Your task to perform on an android device: install app "ZOOM Cloud Meetings" Image 0: 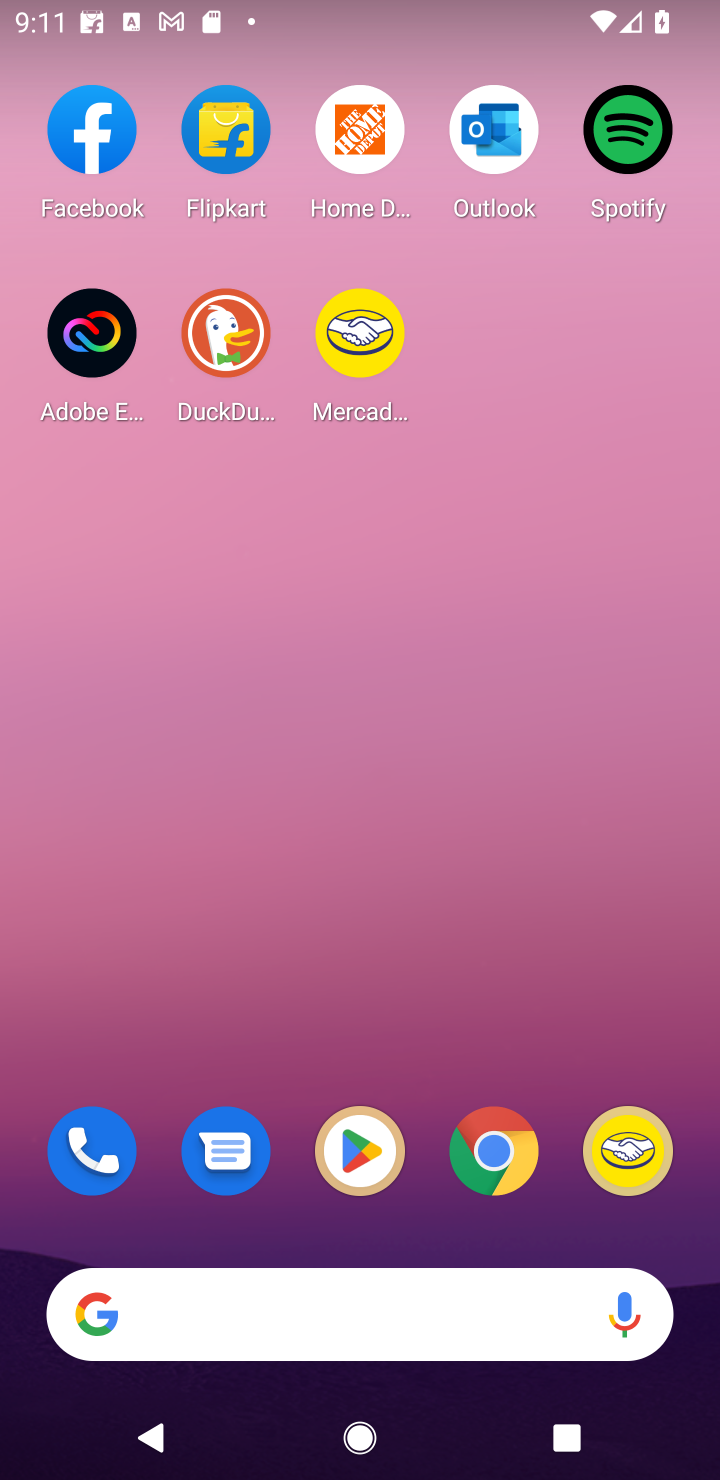
Step 0: press home button
Your task to perform on an android device: install app "ZOOM Cloud Meetings" Image 1: 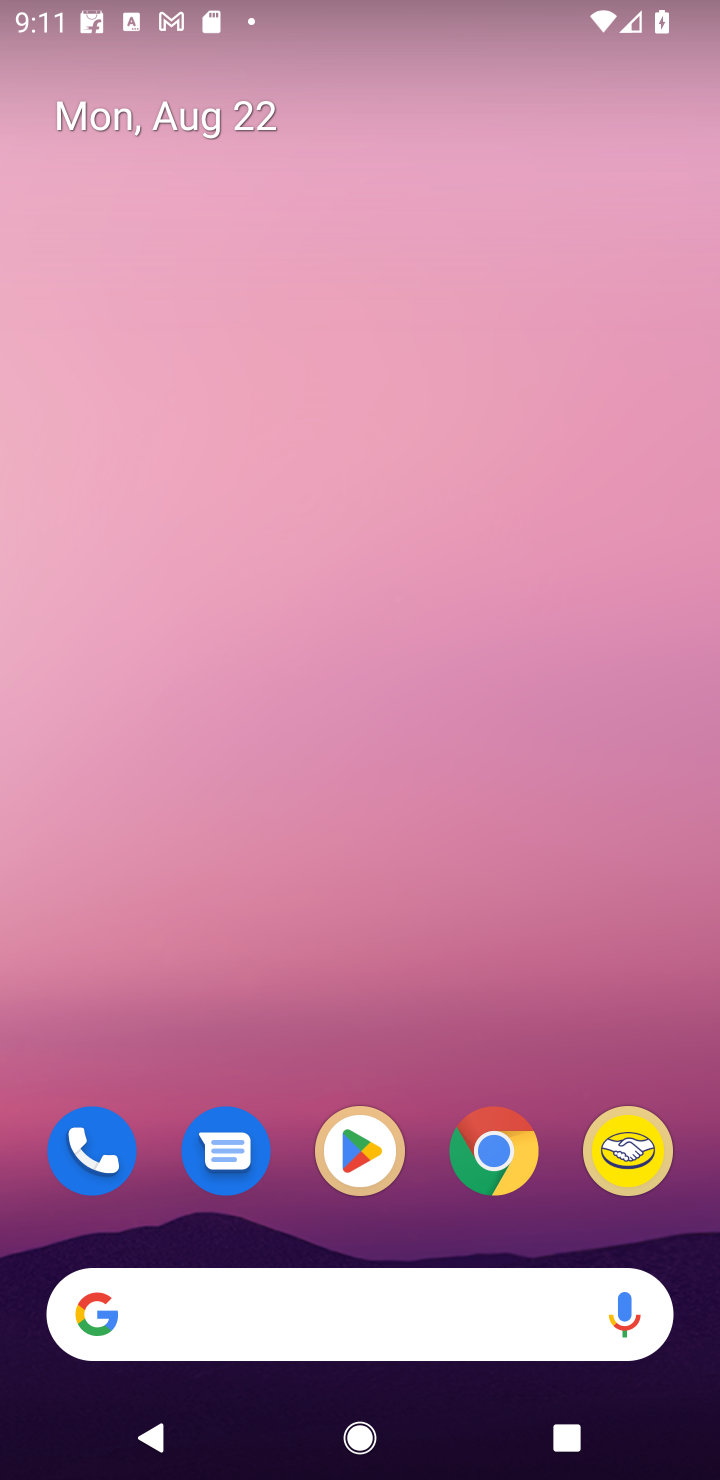
Step 1: click (357, 1156)
Your task to perform on an android device: install app "ZOOM Cloud Meetings" Image 2: 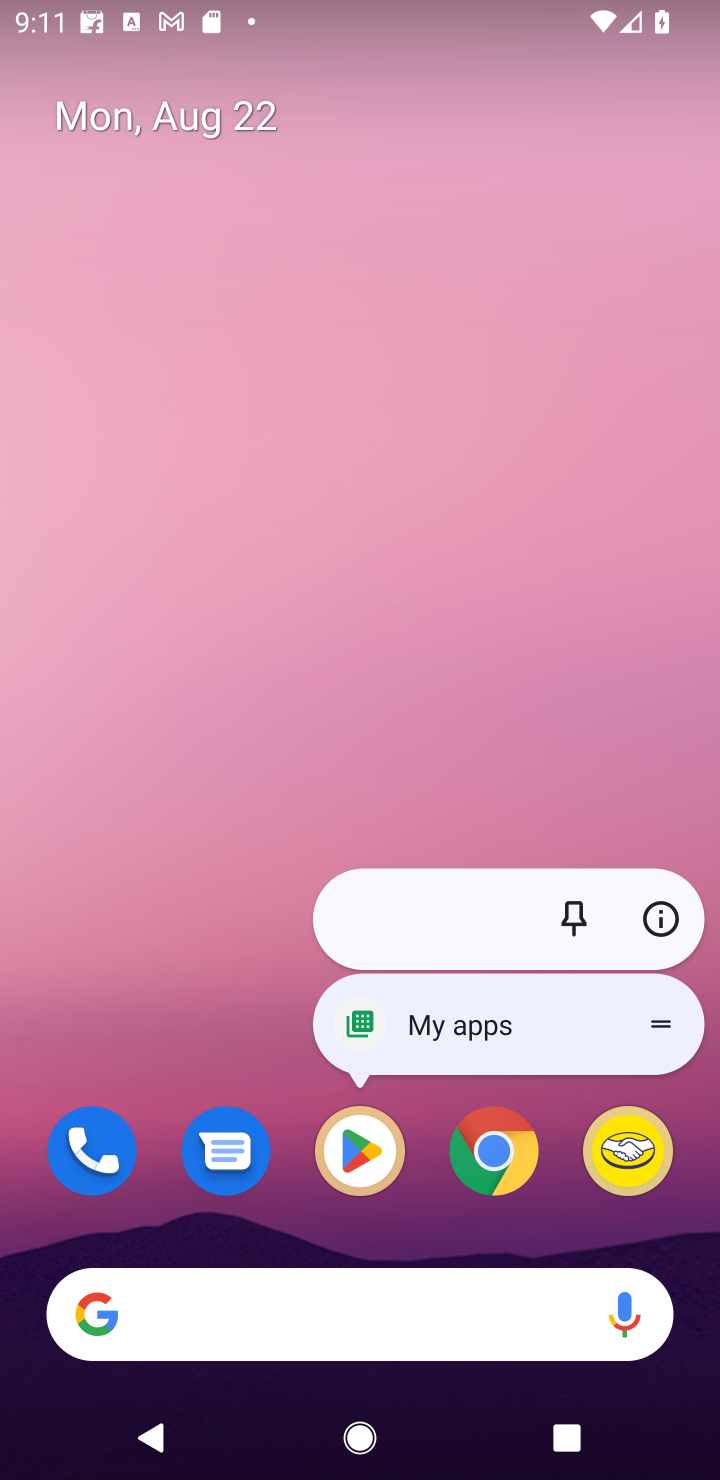
Step 2: click (359, 1167)
Your task to perform on an android device: install app "ZOOM Cloud Meetings" Image 3: 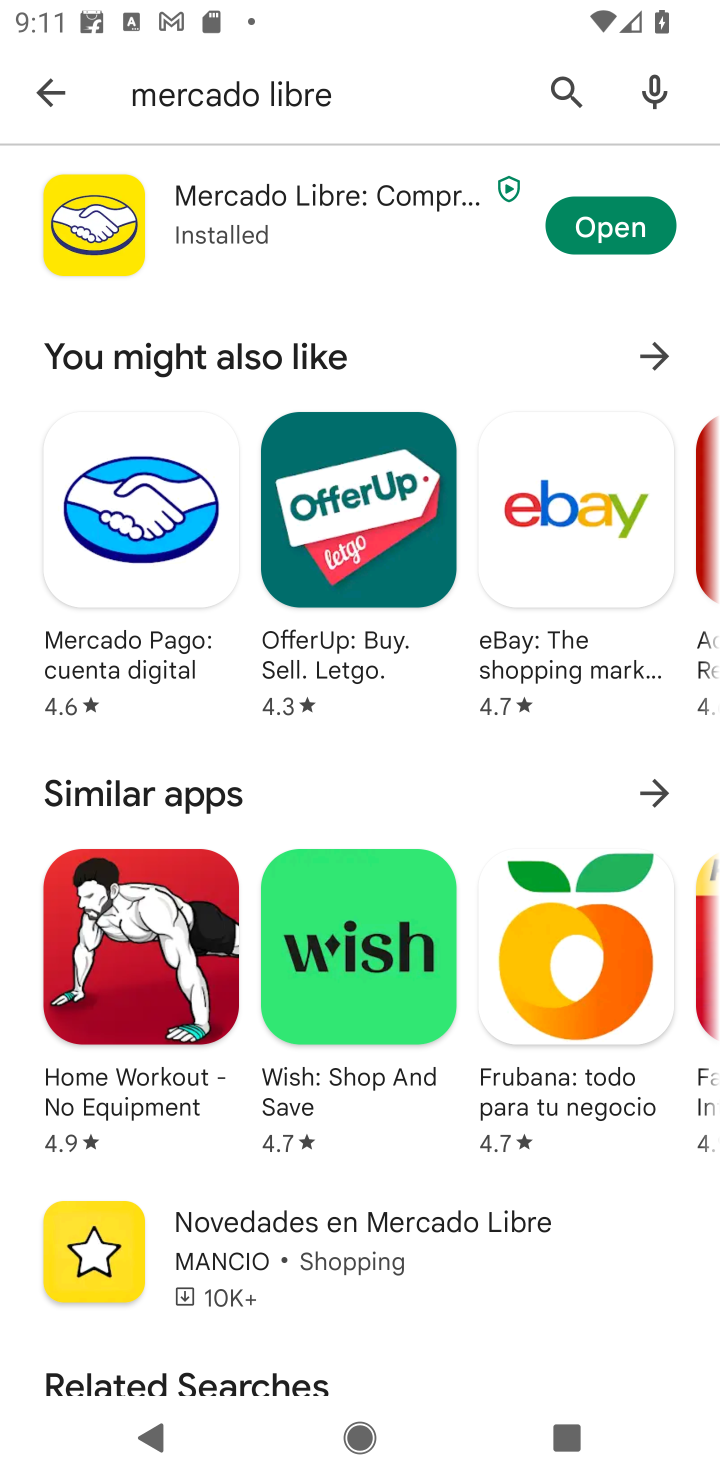
Step 3: click (556, 78)
Your task to perform on an android device: install app "ZOOM Cloud Meetings" Image 4: 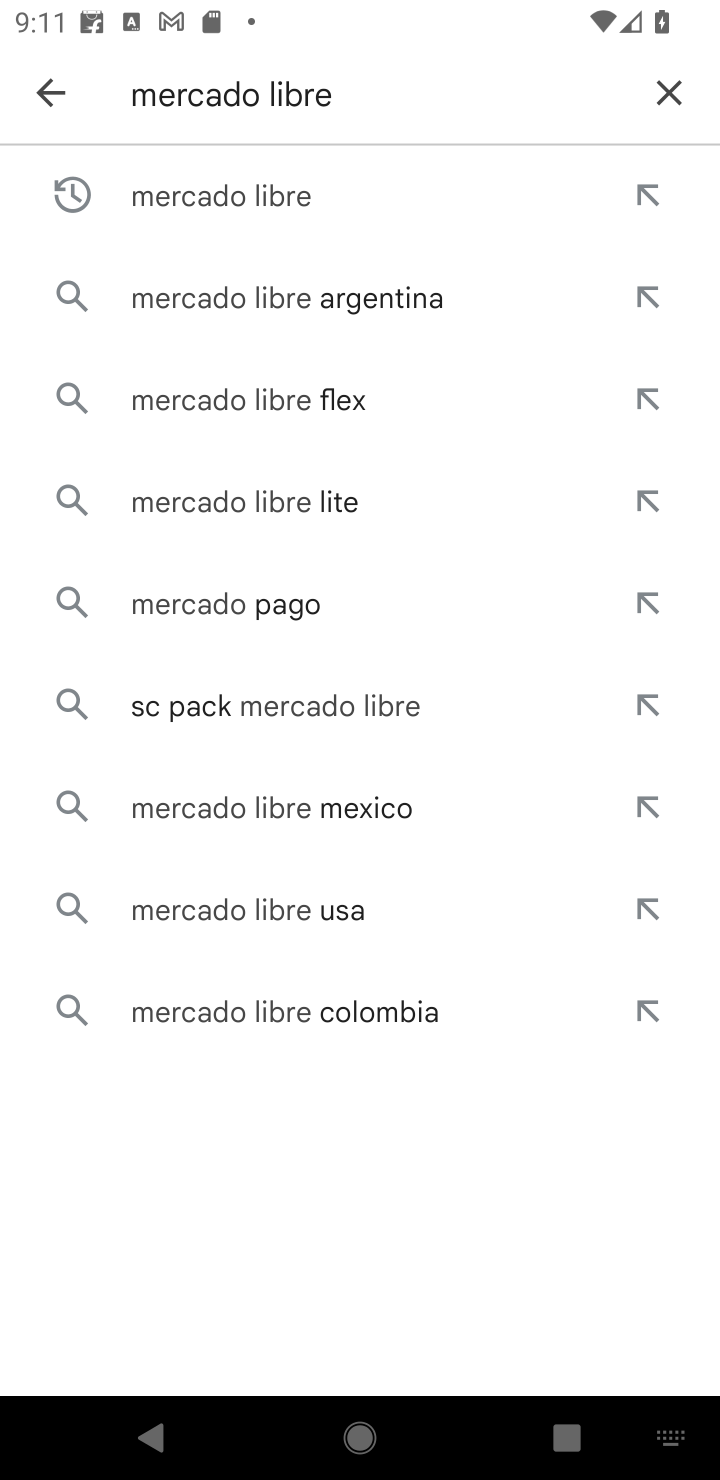
Step 4: click (655, 75)
Your task to perform on an android device: install app "ZOOM Cloud Meetings" Image 5: 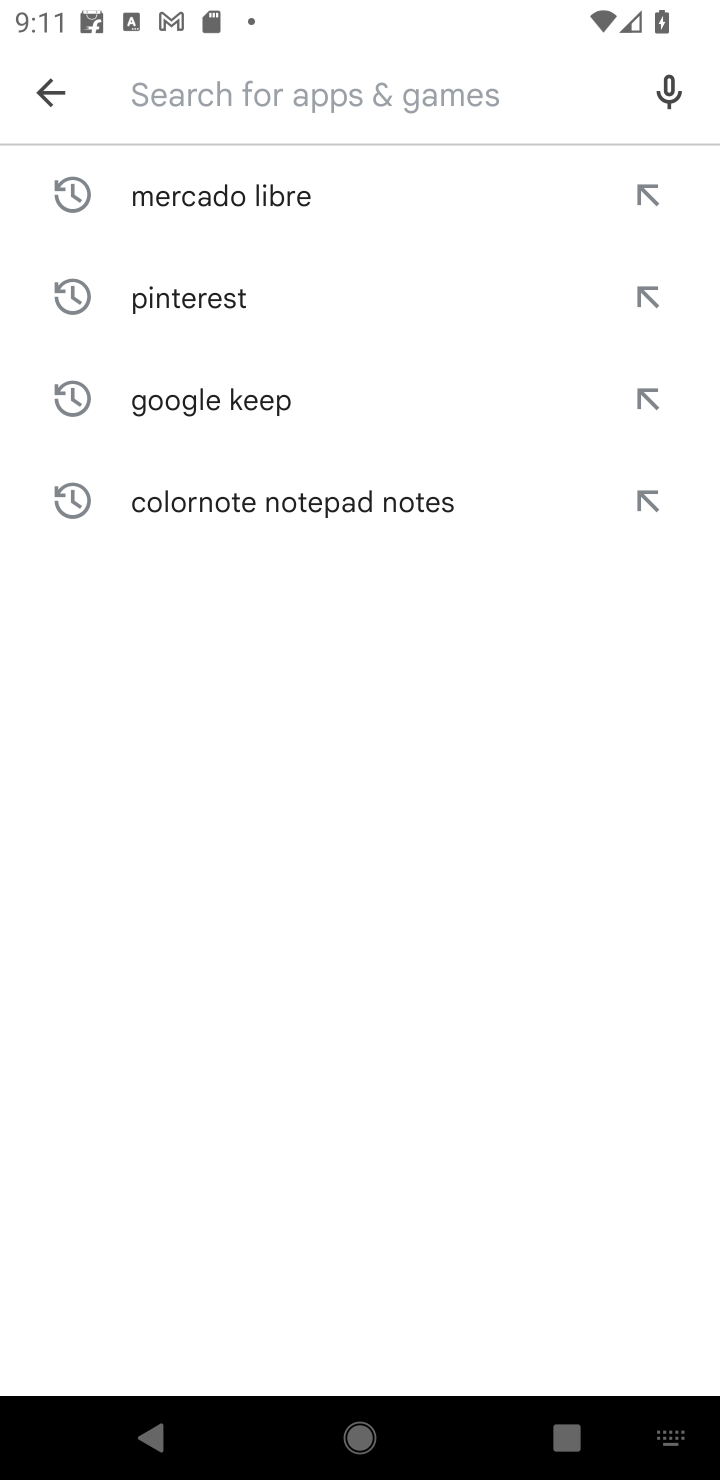
Step 5: type "ZOOM Cloud Meetings"
Your task to perform on an android device: install app "ZOOM Cloud Meetings" Image 6: 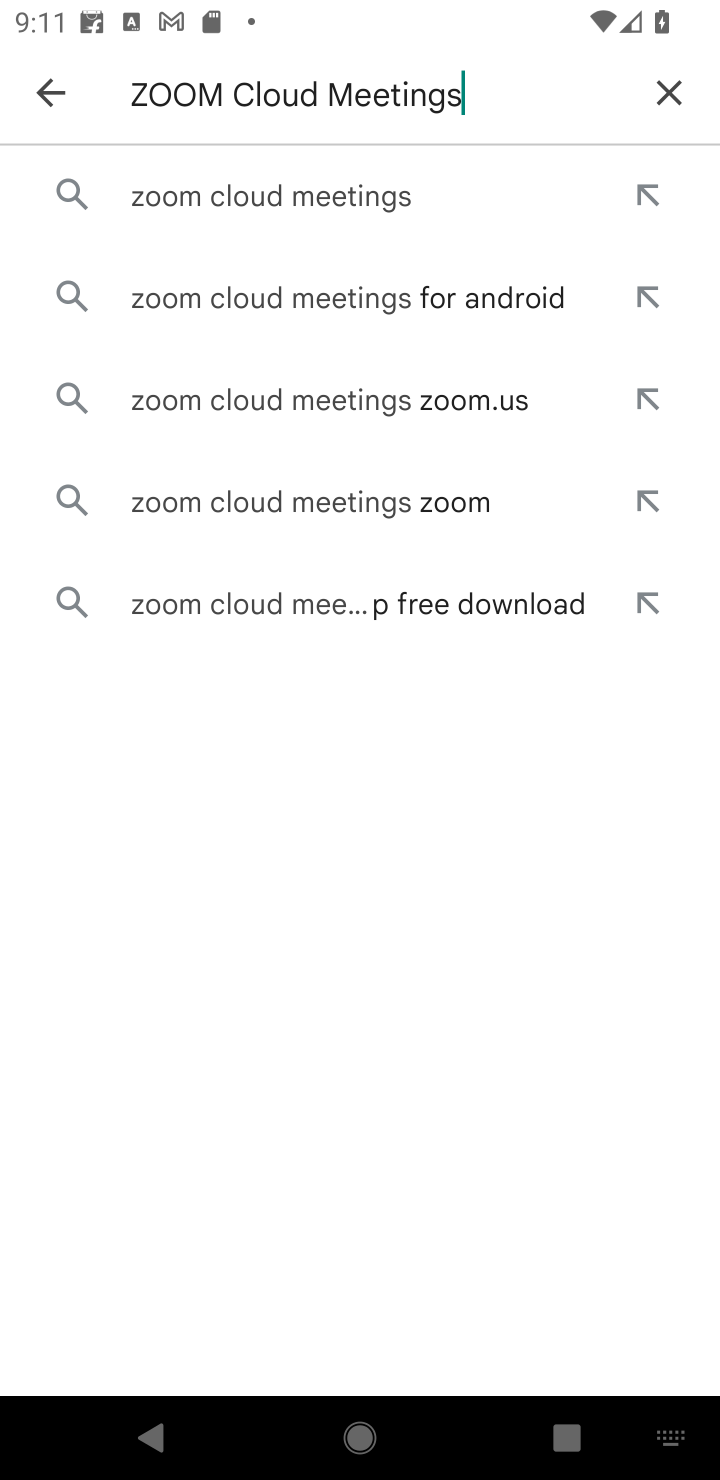
Step 6: click (253, 187)
Your task to perform on an android device: install app "ZOOM Cloud Meetings" Image 7: 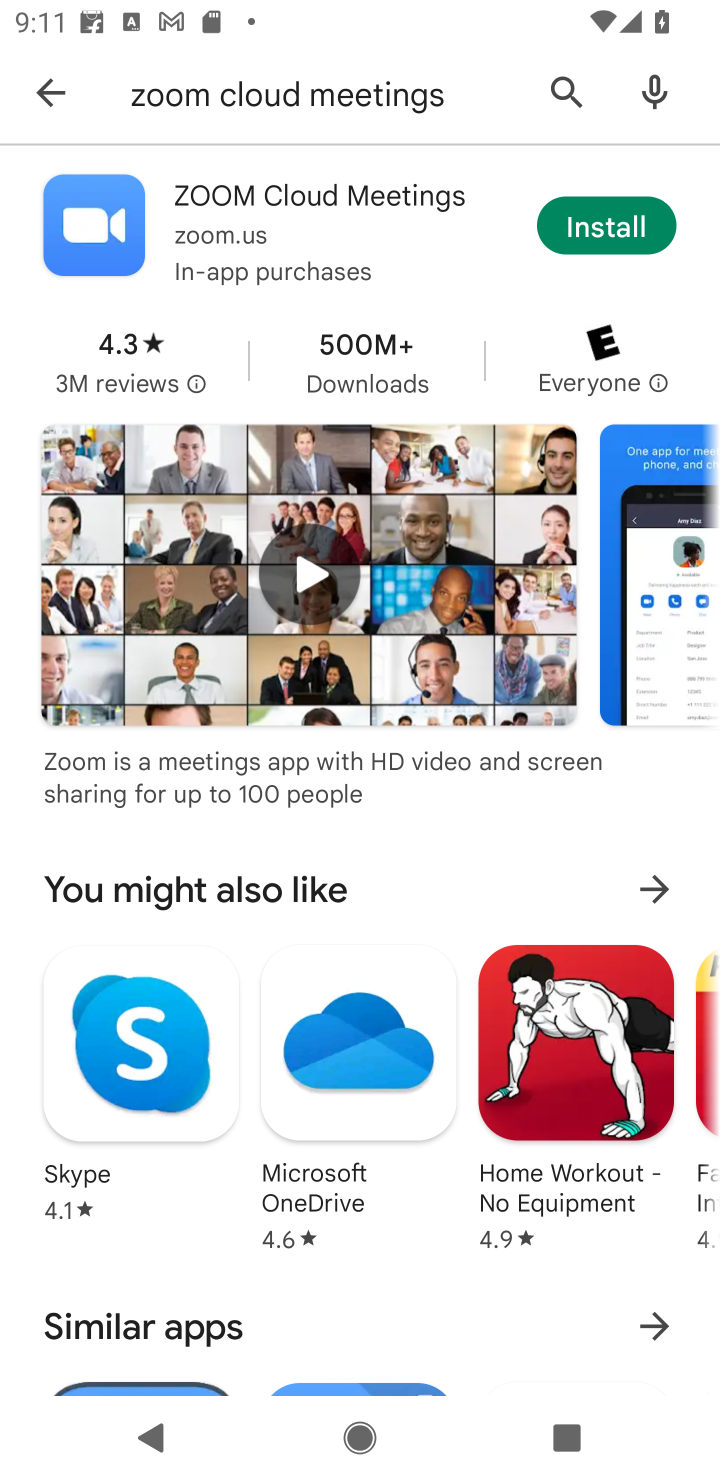
Step 7: click (603, 233)
Your task to perform on an android device: install app "ZOOM Cloud Meetings" Image 8: 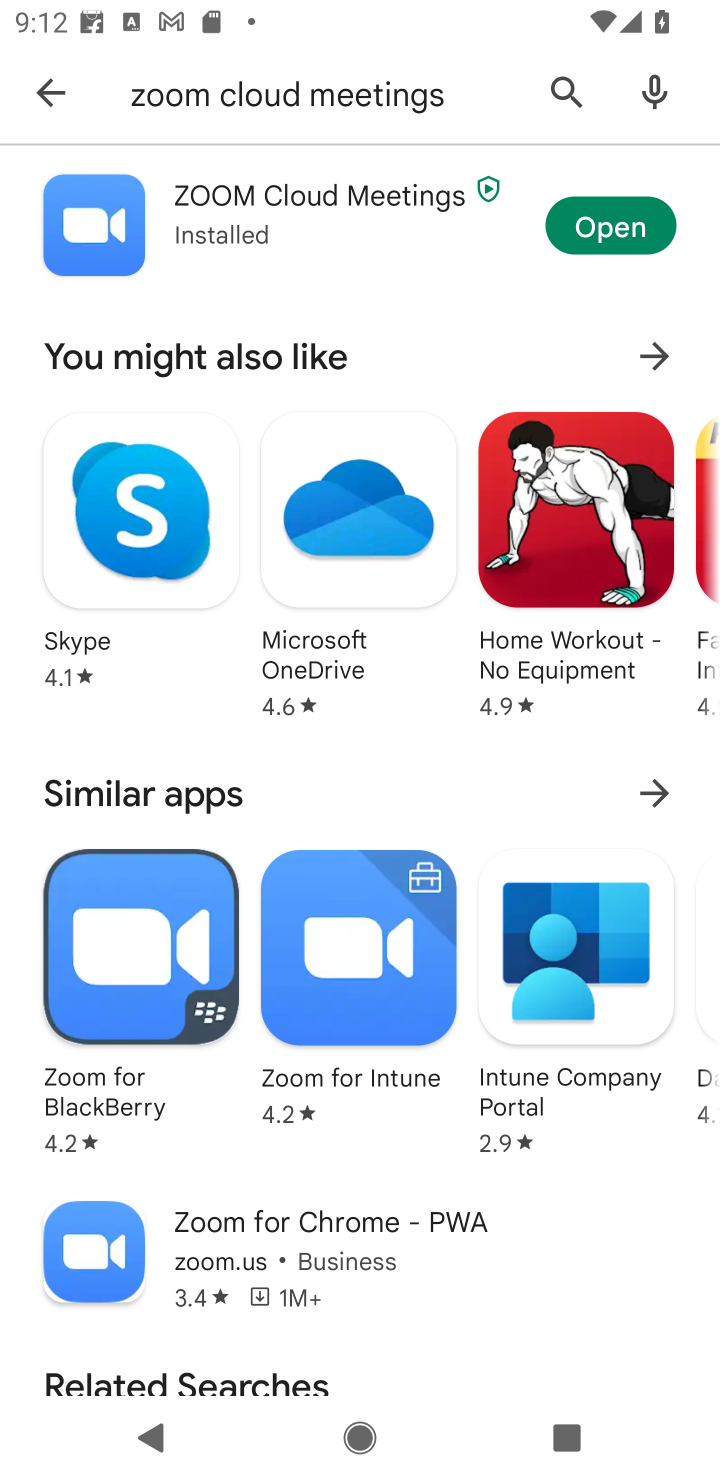
Step 8: task complete